Your task to perform on an android device: Open Google Chrome and open the bookmarks view Image 0: 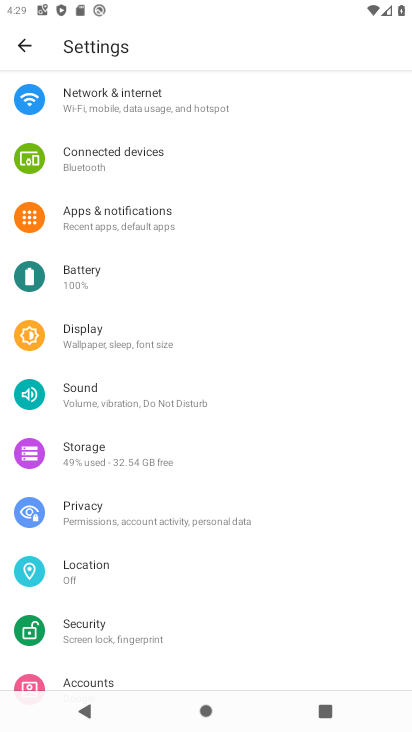
Step 0: press home button
Your task to perform on an android device: Open Google Chrome and open the bookmarks view Image 1: 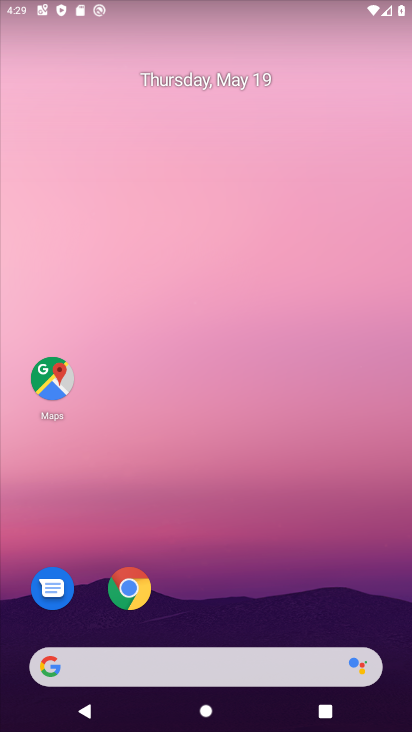
Step 1: click (139, 588)
Your task to perform on an android device: Open Google Chrome and open the bookmarks view Image 2: 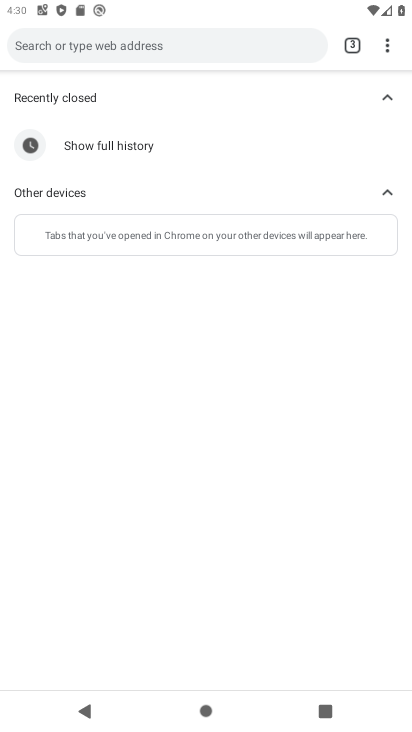
Step 2: click (385, 39)
Your task to perform on an android device: Open Google Chrome and open the bookmarks view Image 3: 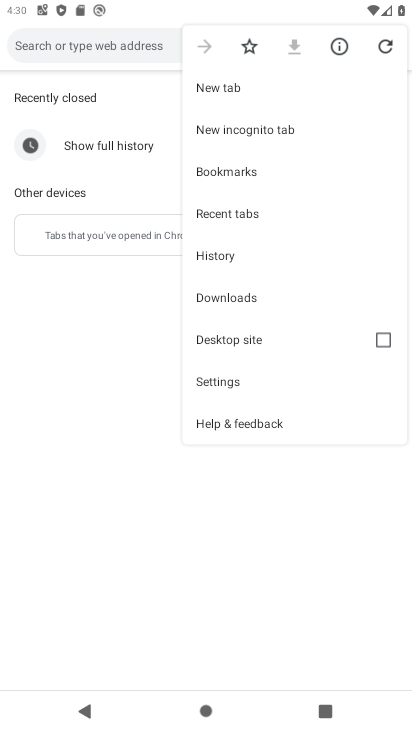
Step 3: click (229, 180)
Your task to perform on an android device: Open Google Chrome and open the bookmarks view Image 4: 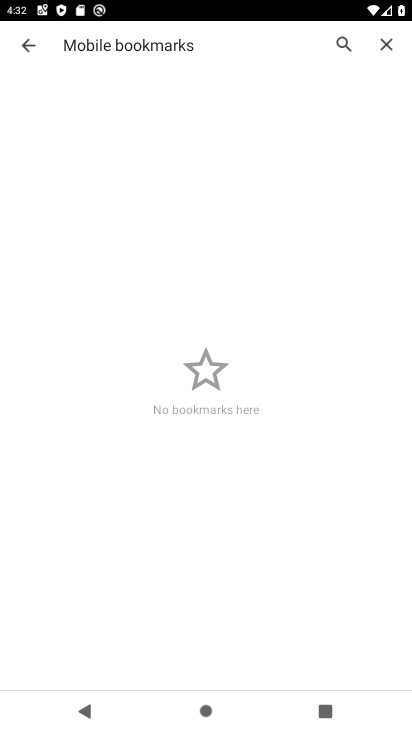
Step 4: task complete